Your task to perform on an android device: turn off location history Image 0: 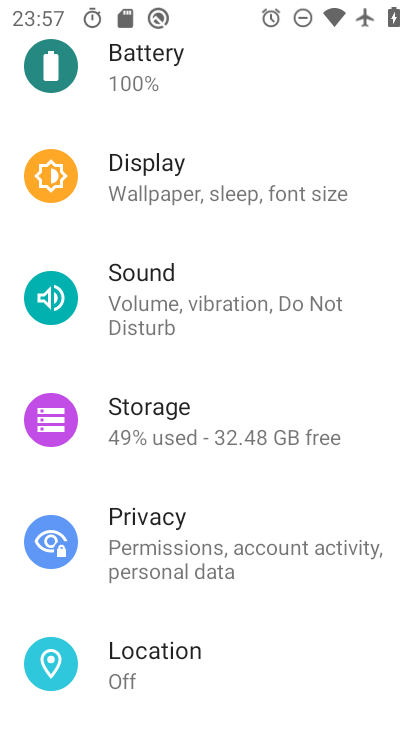
Step 0: drag from (230, 655) to (292, 439)
Your task to perform on an android device: turn off location history Image 1: 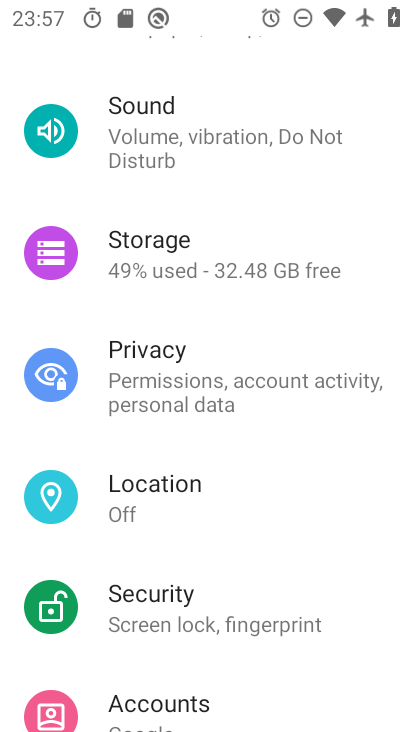
Step 1: click (231, 507)
Your task to perform on an android device: turn off location history Image 2: 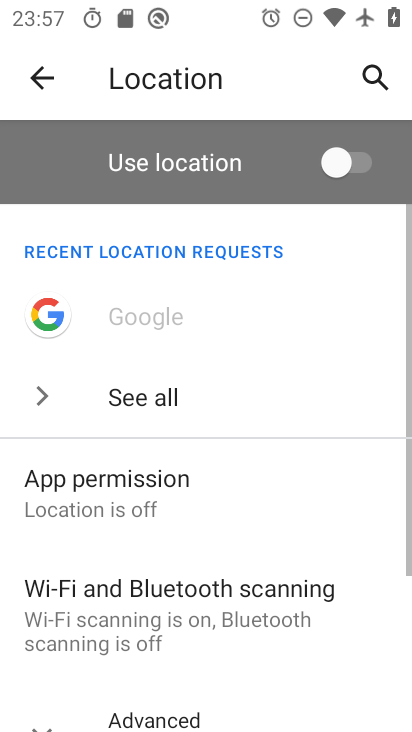
Step 2: drag from (224, 620) to (259, 305)
Your task to perform on an android device: turn off location history Image 3: 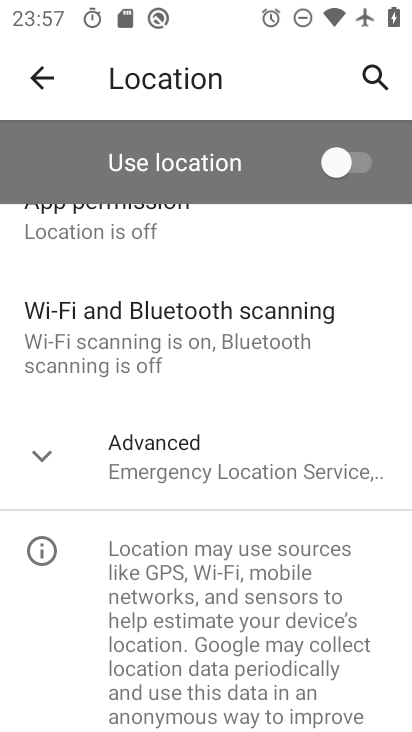
Step 3: click (224, 462)
Your task to perform on an android device: turn off location history Image 4: 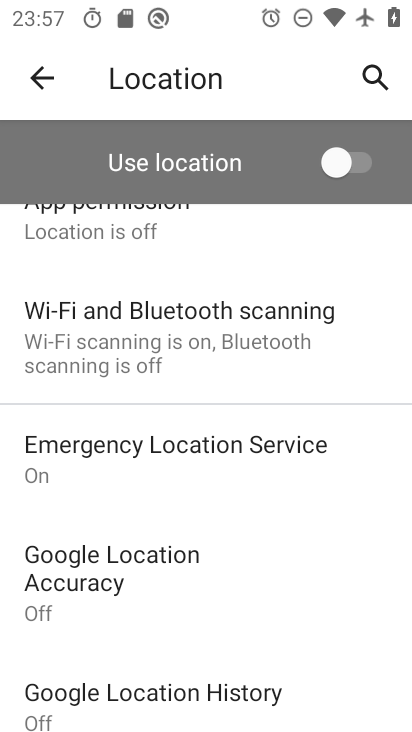
Step 4: drag from (220, 674) to (263, 451)
Your task to perform on an android device: turn off location history Image 5: 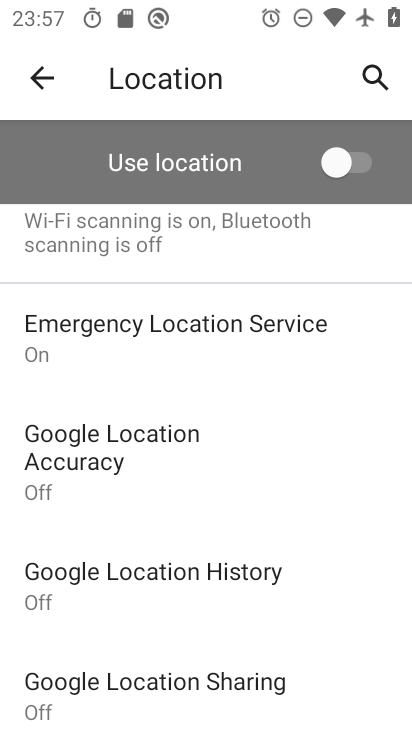
Step 5: click (247, 570)
Your task to perform on an android device: turn off location history Image 6: 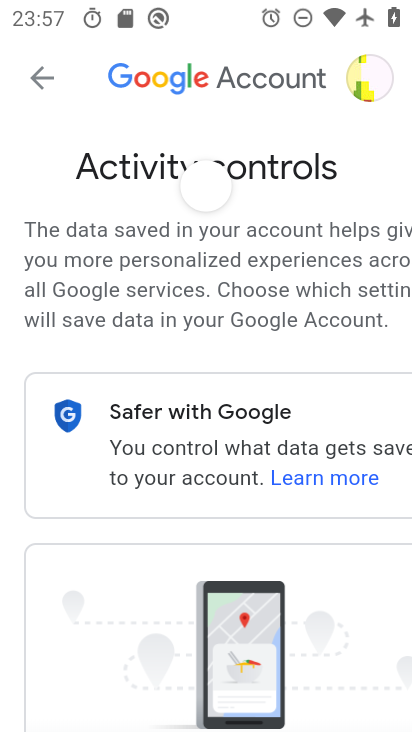
Step 6: drag from (333, 647) to (339, 219)
Your task to perform on an android device: turn off location history Image 7: 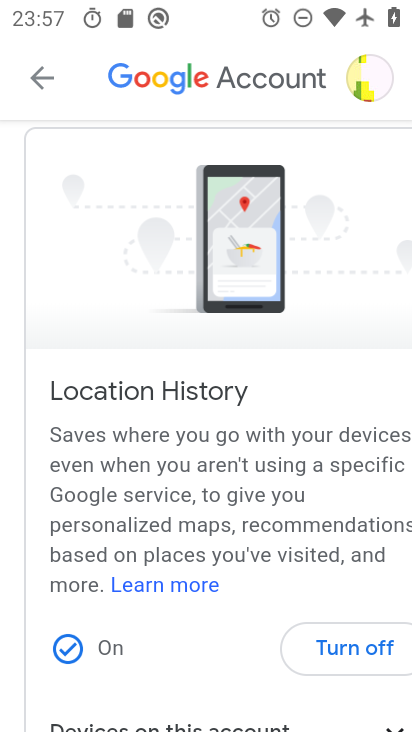
Step 7: drag from (202, 539) to (223, 232)
Your task to perform on an android device: turn off location history Image 8: 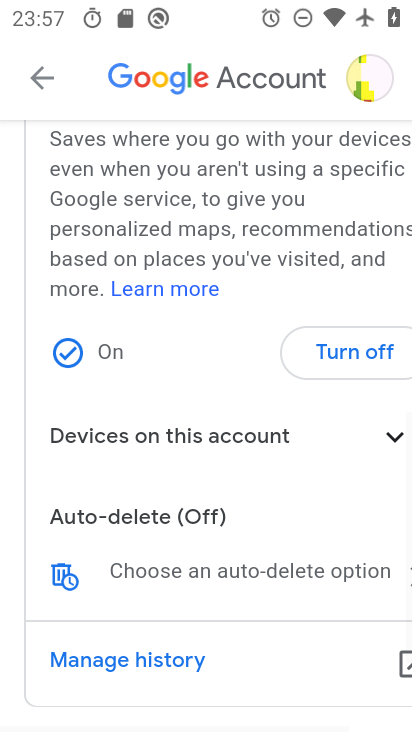
Step 8: drag from (191, 561) to (210, 352)
Your task to perform on an android device: turn off location history Image 9: 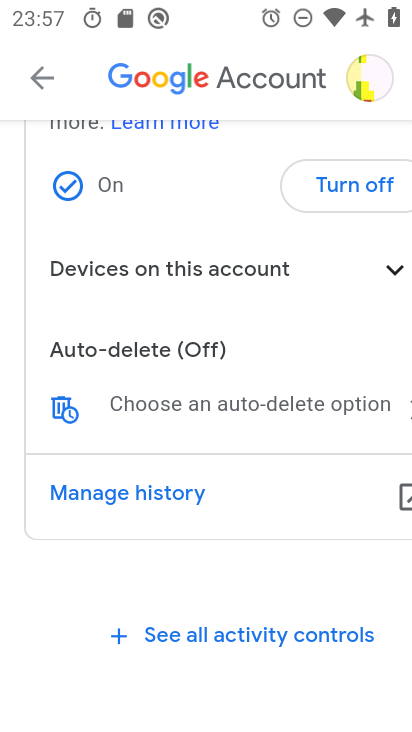
Step 9: click (349, 187)
Your task to perform on an android device: turn off location history Image 10: 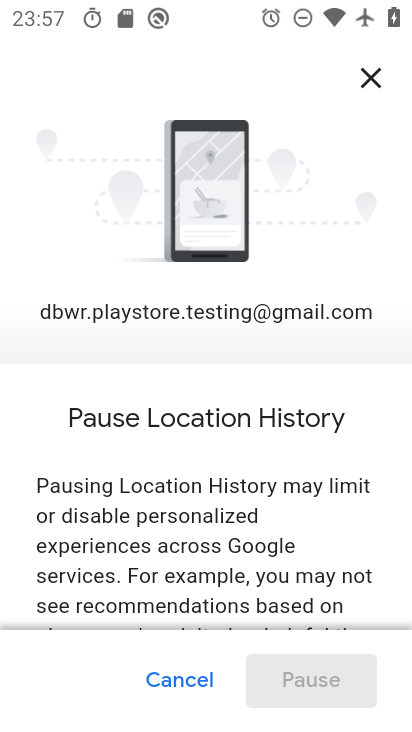
Step 10: drag from (328, 586) to (320, 205)
Your task to perform on an android device: turn off location history Image 11: 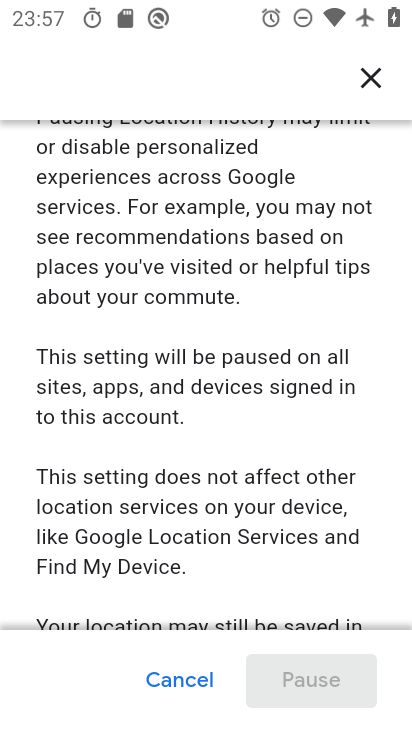
Step 11: drag from (292, 526) to (295, 270)
Your task to perform on an android device: turn off location history Image 12: 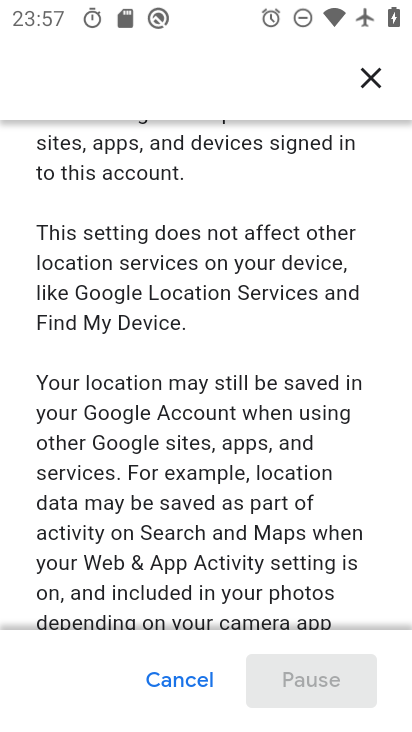
Step 12: drag from (296, 576) to (301, 255)
Your task to perform on an android device: turn off location history Image 13: 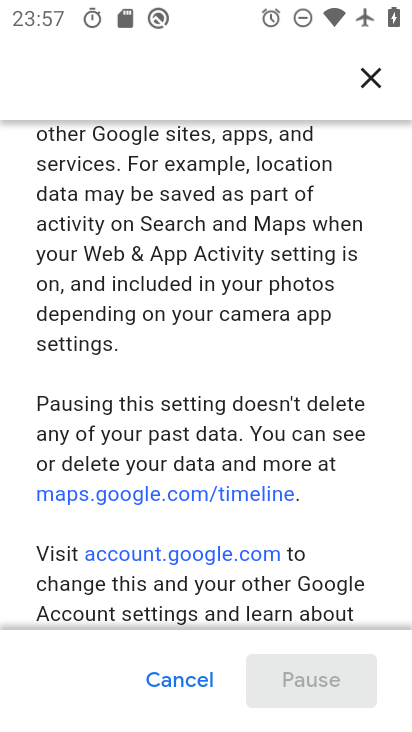
Step 13: drag from (305, 564) to (308, 302)
Your task to perform on an android device: turn off location history Image 14: 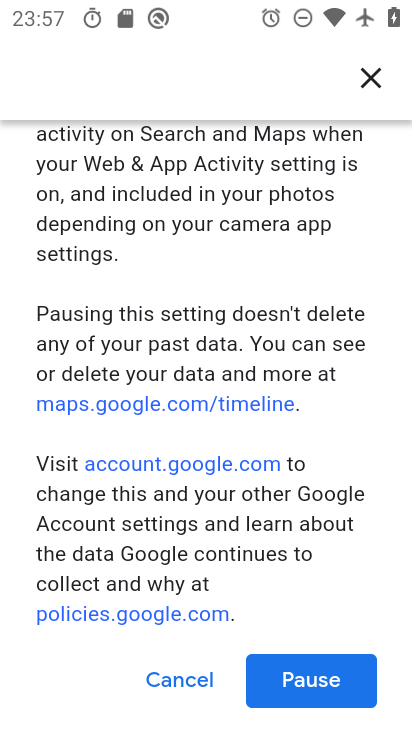
Step 14: click (305, 677)
Your task to perform on an android device: turn off location history Image 15: 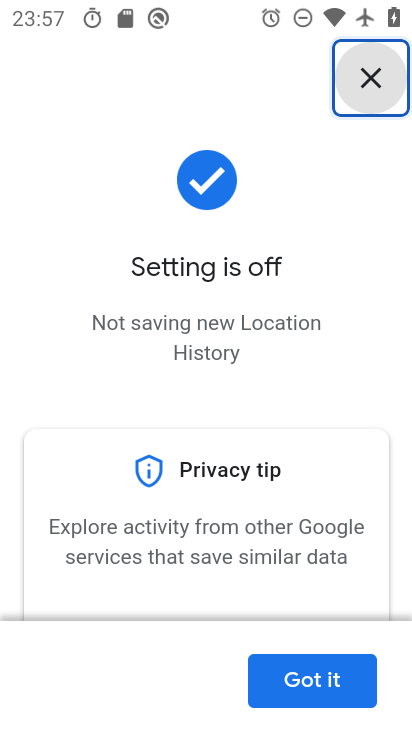
Step 15: task complete